Your task to perform on an android device: empty trash in the gmail app Image 0: 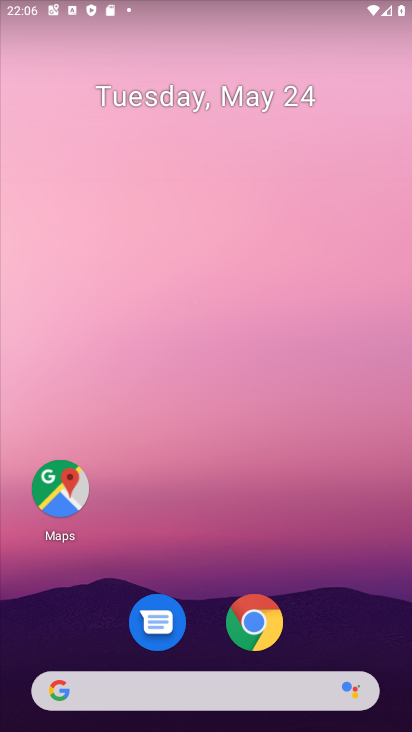
Step 0: press home button
Your task to perform on an android device: empty trash in the gmail app Image 1: 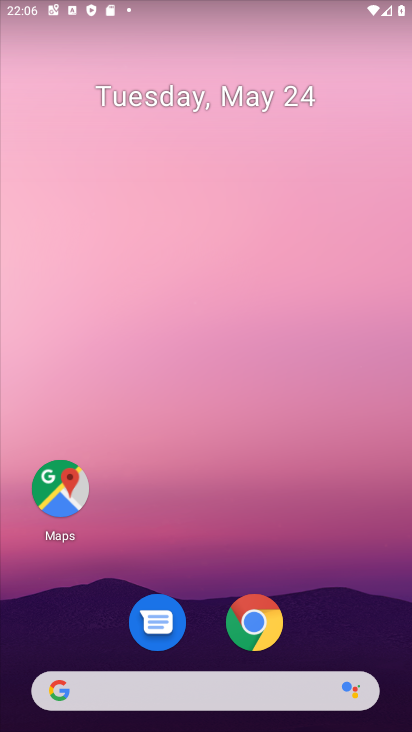
Step 1: drag from (236, 707) to (380, 12)
Your task to perform on an android device: empty trash in the gmail app Image 2: 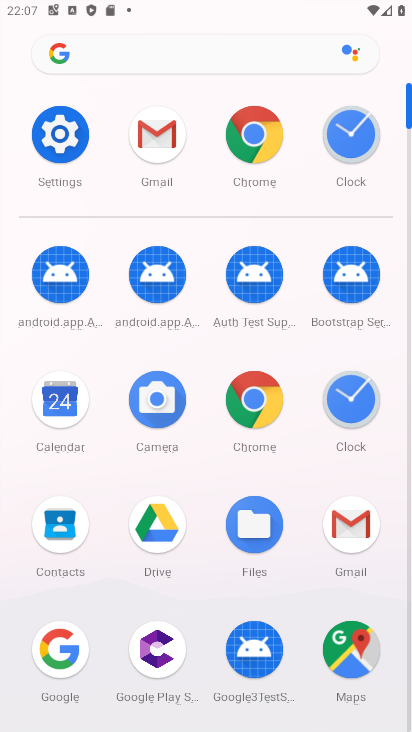
Step 2: click (170, 152)
Your task to perform on an android device: empty trash in the gmail app Image 3: 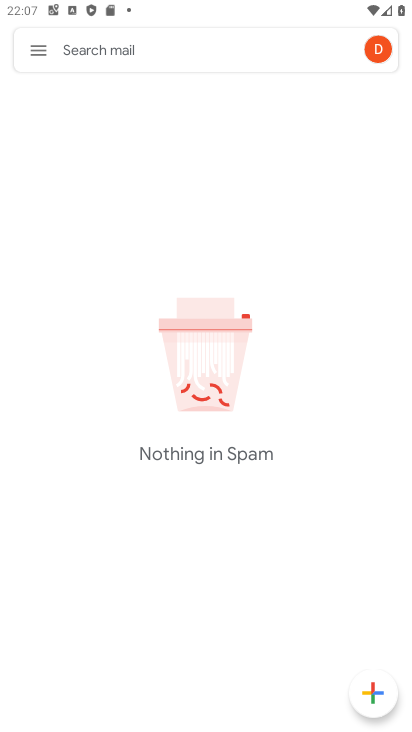
Step 3: click (39, 60)
Your task to perform on an android device: empty trash in the gmail app Image 4: 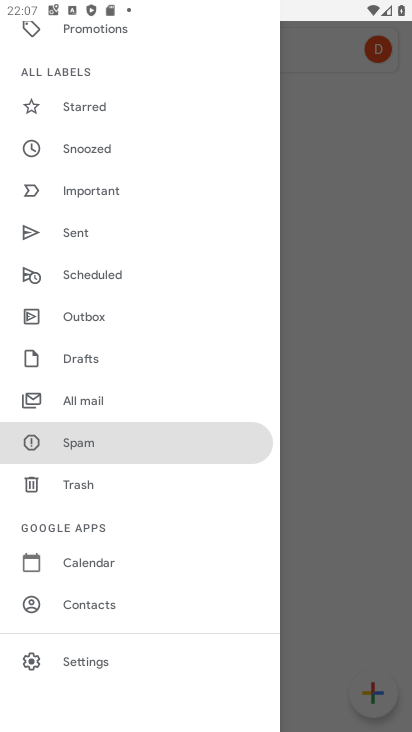
Step 4: click (81, 476)
Your task to perform on an android device: empty trash in the gmail app Image 5: 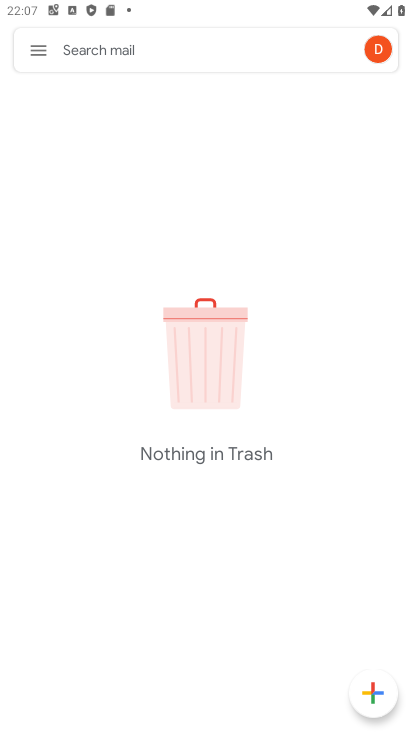
Step 5: task complete